Your task to perform on an android device: toggle sleep mode Image 0: 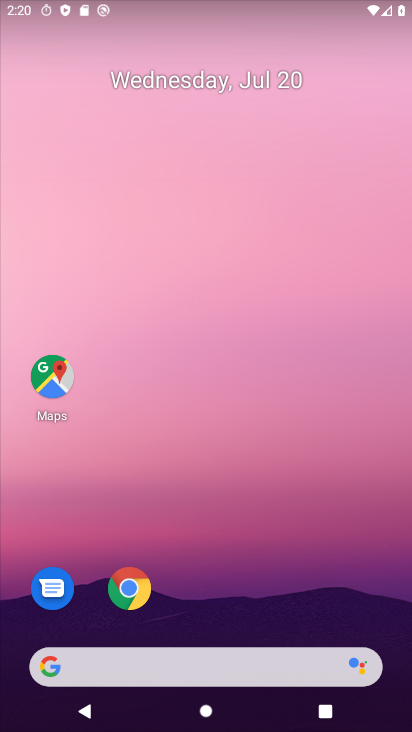
Step 0: drag from (196, 588) to (0, 436)
Your task to perform on an android device: toggle sleep mode Image 1: 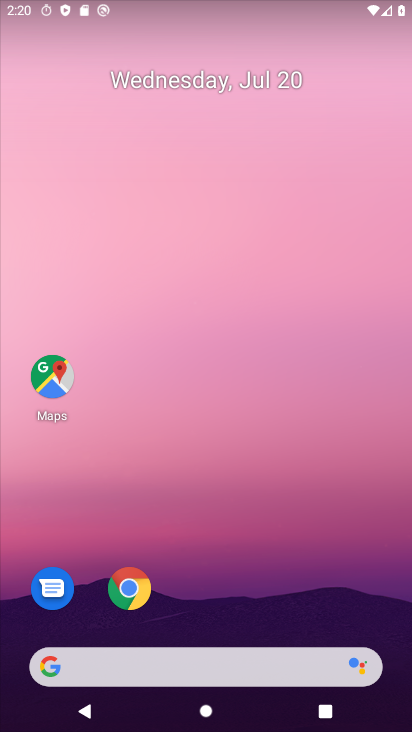
Step 1: drag from (199, 583) to (316, 0)
Your task to perform on an android device: toggle sleep mode Image 2: 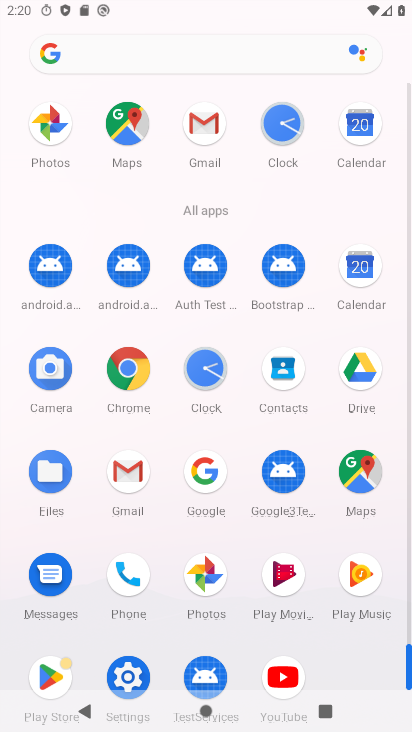
Step 2: click (120, 657)
Your task to perform on an android device: toggle sleep mode Image 3: 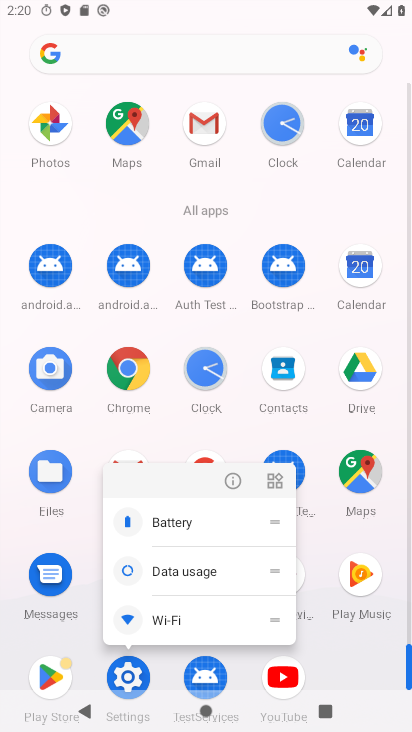
Step 3: click (236, 489)
Your task to perform on an android device: toggle sleep mode Image 4: 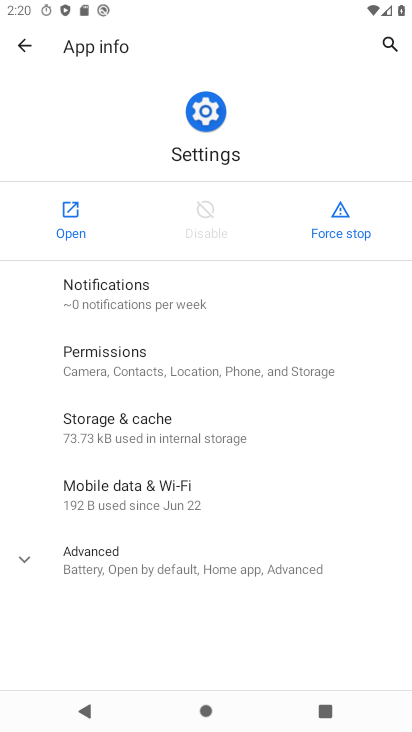
Step 4: click (66, 218)
Your task to perform on an android device: toggle sleep mode Image 5: 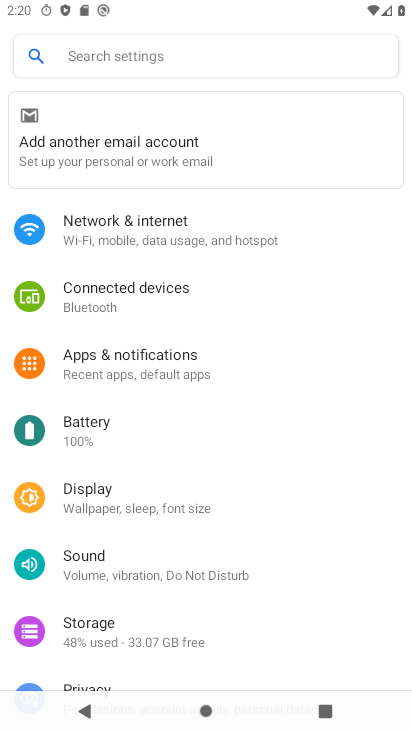
Step 5: click (143, 509)
Your task to perform on an android device: toggle sleep mode Image 6: 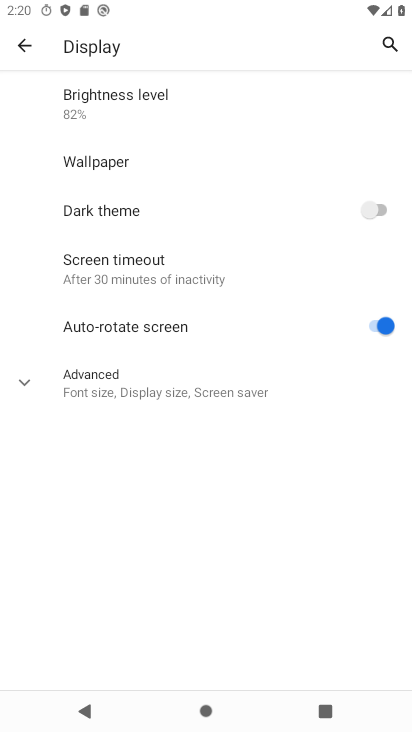
Step 6: click (138, 268)
Your task to perform on an android device: toggle sleep mode Image 7: 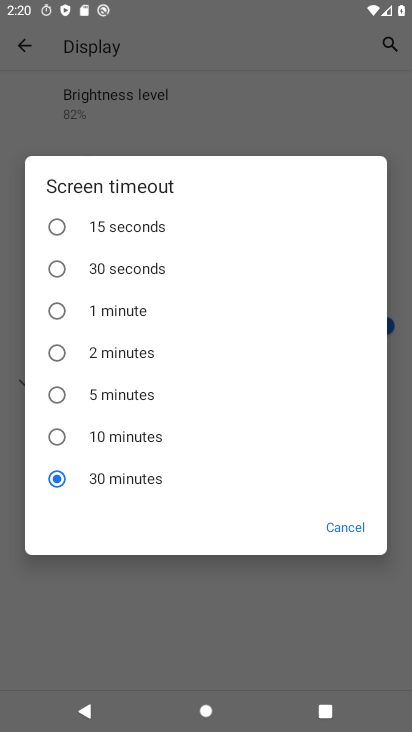
Step 7: drag from (221, 495) to (255, 270)
Your task to perform on an android device: toggle sleep mode Image 8: 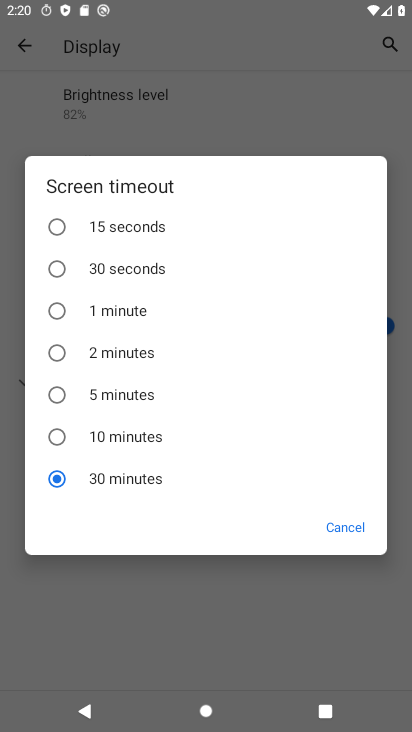
Step 8: click (110, 227)
Your task to perform on an android device: toggle sleep mode Image 9: 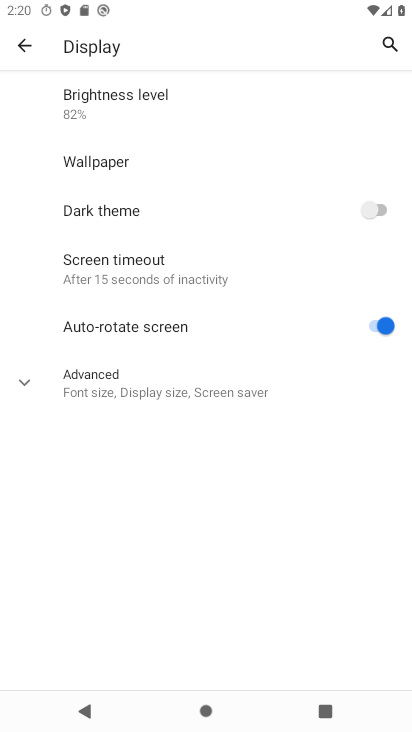
Step 9: task complete